Your task to perform on an android device: Open location settings Image 0: 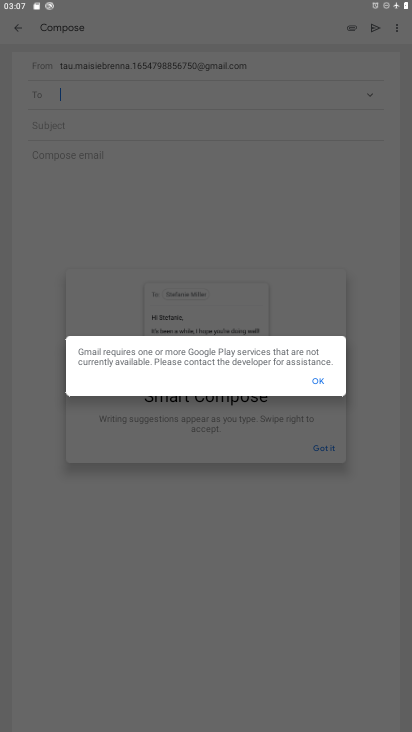
Step 0: press home button
Your task to perform on an android device: Open location settings Image 1: 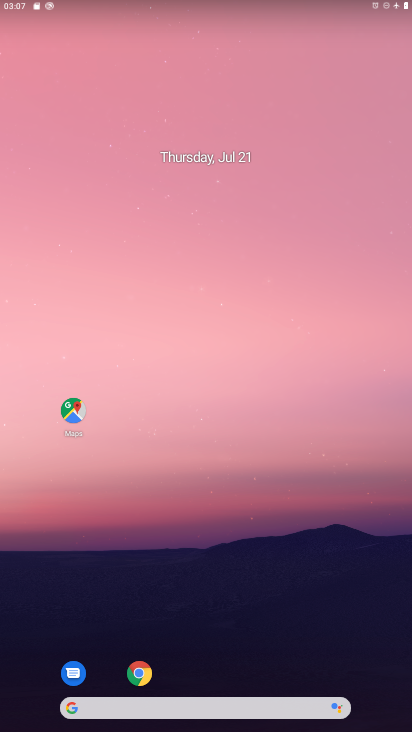
Step 1: drag from (193, 608) to (219, 91)
Your task to perform on an android device: Open location settings Image 2: 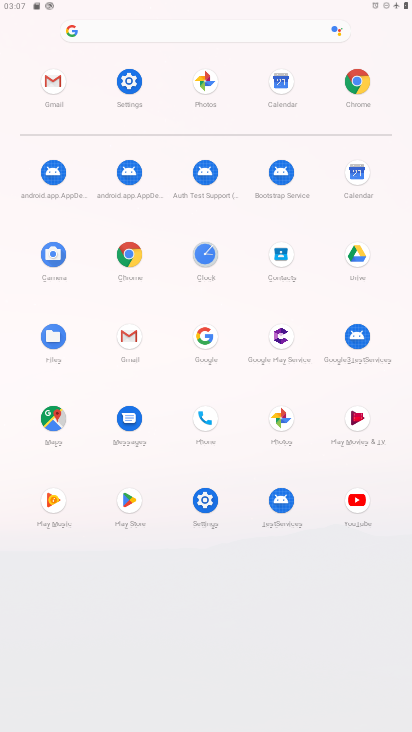
Step 2: click (134, 77)
Your task to perform on an android device: Open location settings Image 3: 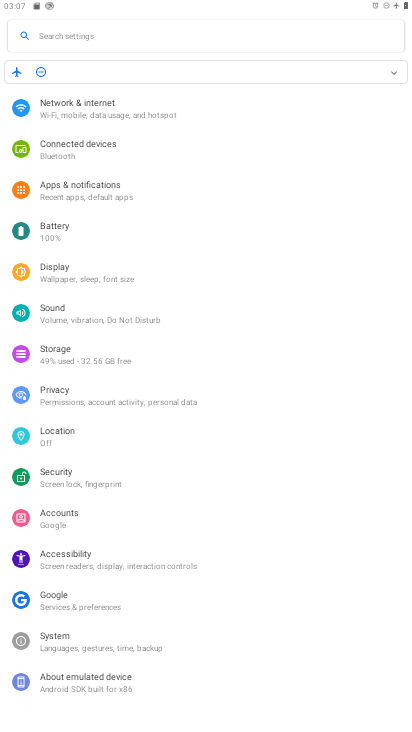
Step 3: click (80, 426)
Your task to perform on an android device: Open location settings Image 4: 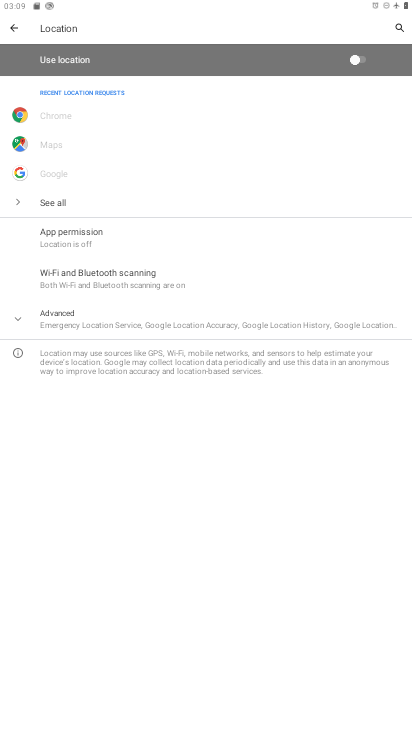
Step 4: task complete